Your task to perform on an android device: change keyboard looks Image 0: 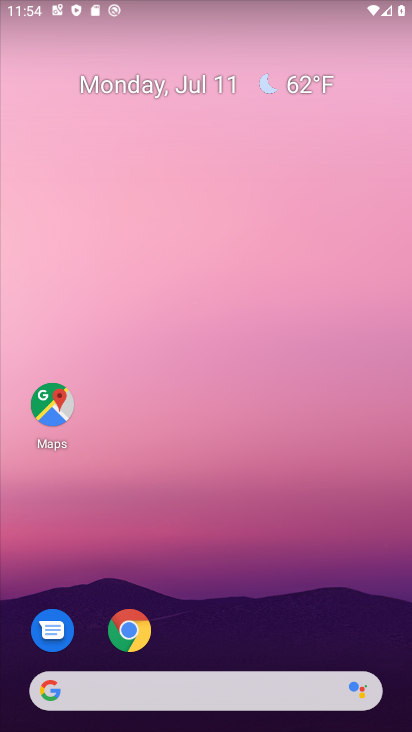
Step 0: drag from (150, 670) to (238, 183)
Your task to perform on an android device: change keyboard looks Image 1: 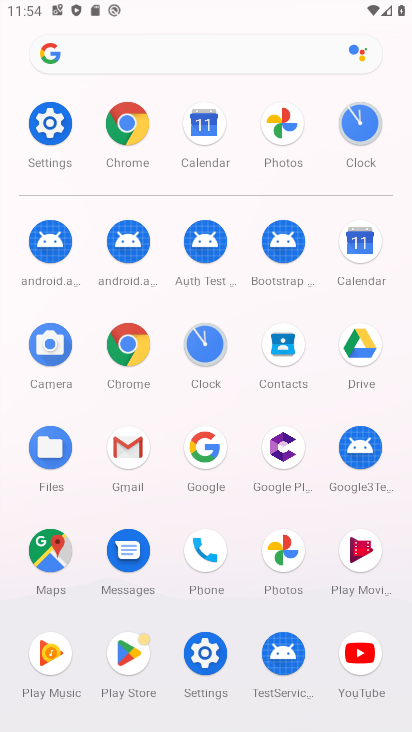
Step 1: click (43, 125)
Your task to perform on an android device: change keyboard looks Image 2: 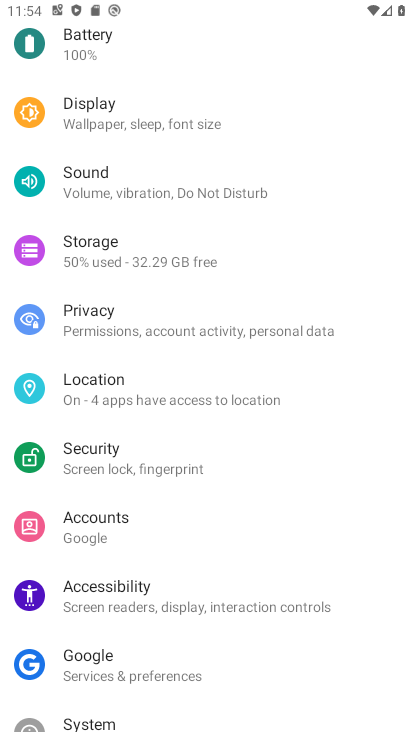
Step 2: drag from (101, 612) to (119, 454)
Your task to perform on an android device: change keyboard looks Image 3: 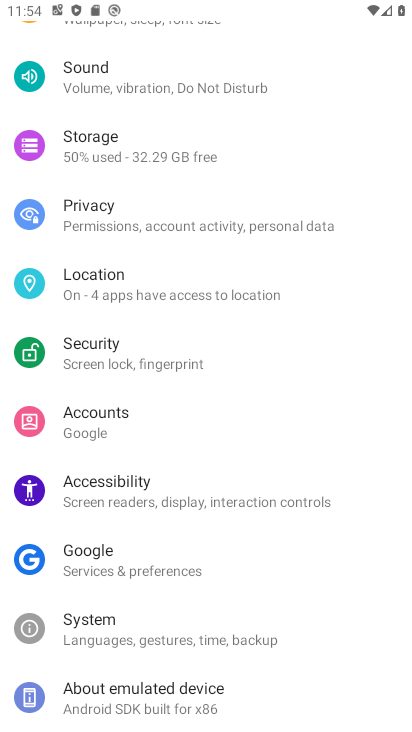
Step 3: click (162, 639)
Your task to perform on an android device: change keyboard looks Image 4: 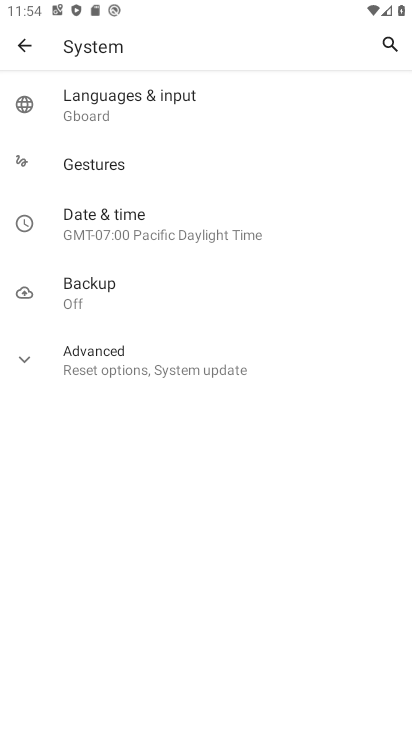
Step 4: click (163, 101)
Your task to perform on an android device: change keyboard looks Image 5: 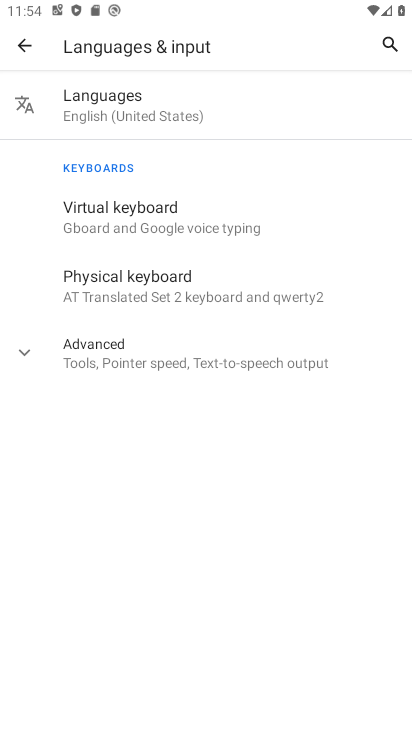
Step 5: click (155, 222)
Your task to perform on an android device: change keyboard looks Image 6: 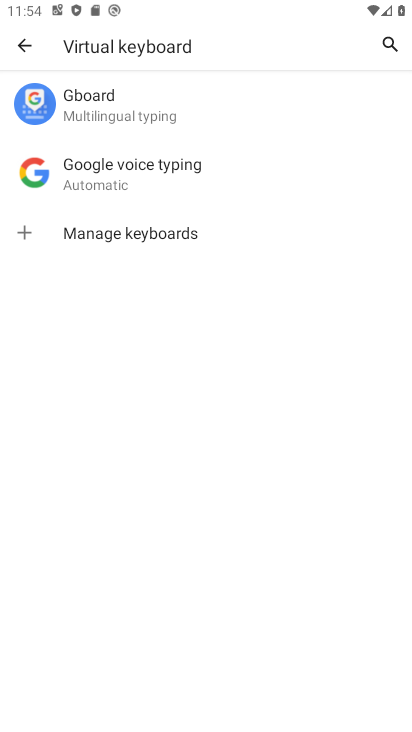
Step 6: click (149, 103)
Your task to perform on an android device: change keyboard looks Image 7: 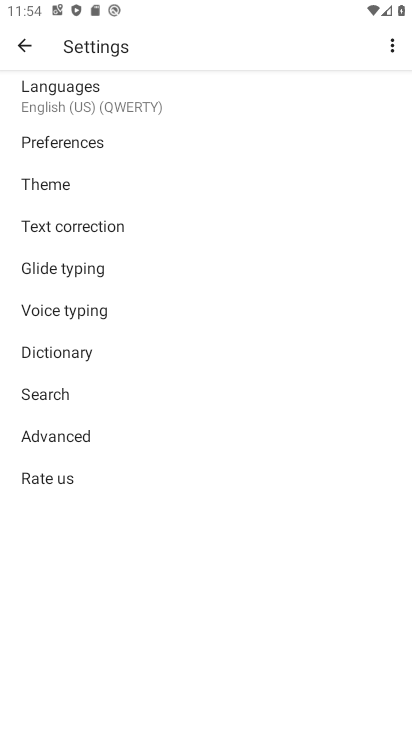
Step 7: click (79, 188)
Your task to perform on an android device: change keyboard looks Image 8: 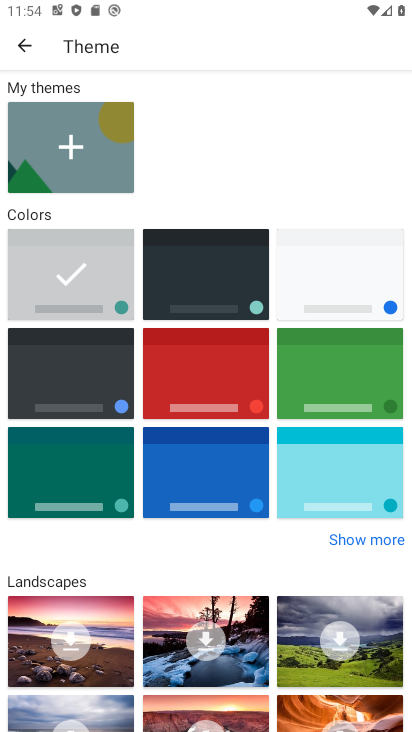
Step 8: click (218, 377)
Your task to perform on an android device: change keyboard looks Image 9: 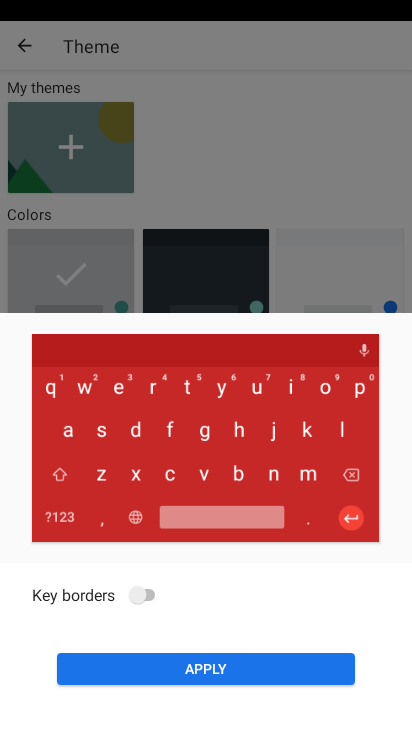
Step 9: click (219, 678)
Your task to perform on an android device: change keyboard looks Image 10: 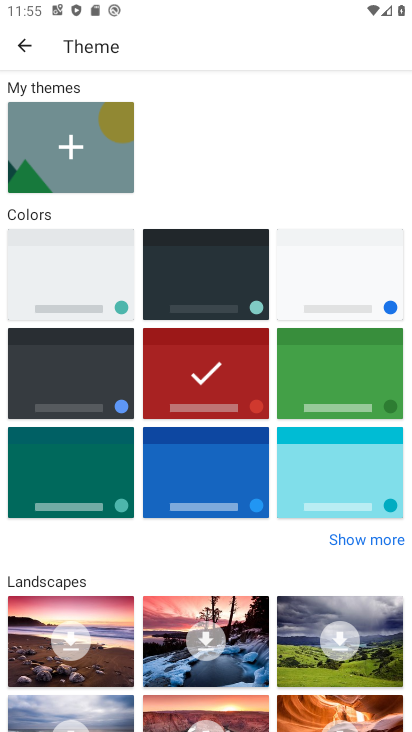
Step 10: task complete